Your task to perform on an android device: What's the weather going to be this weekend? Image 0: 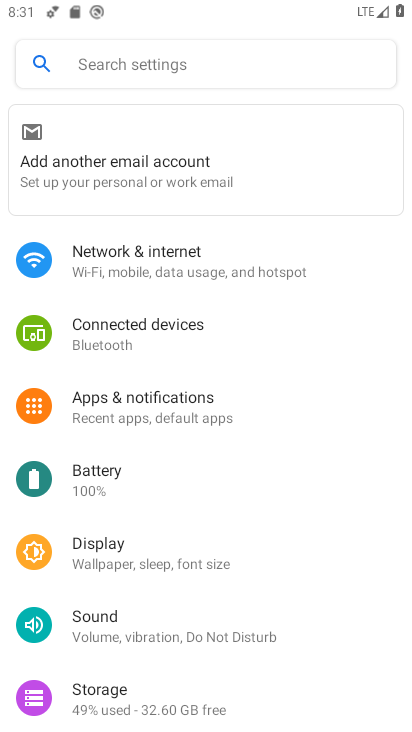
Step 0: press home button
Your task to perform on an android device: What's the weather going to be this weekend? Image 1: 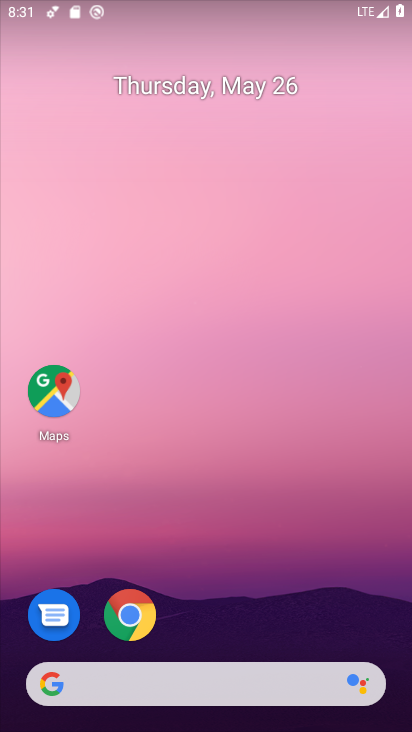
Step 1: drag from (212, 622) to (257, 246)
Your task to perform on an android device: What's the weather going to be this weekend? Image 2: 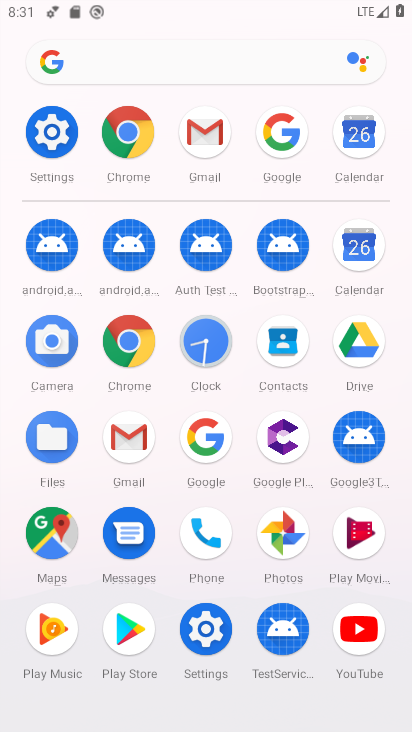
Step 2: click (358, 238)
Your task to perform on an android device: What's the weather going to be this weekend? Image 3: 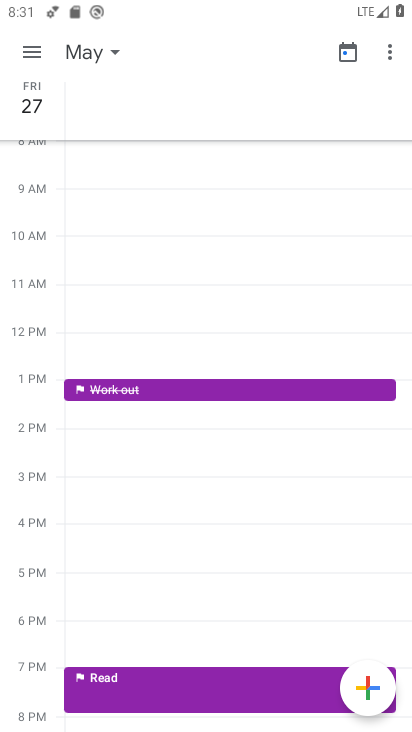
Step 3: click (33, 50)
Your task to perform on an android device: What's the weather going to be this weekend? Image 4: 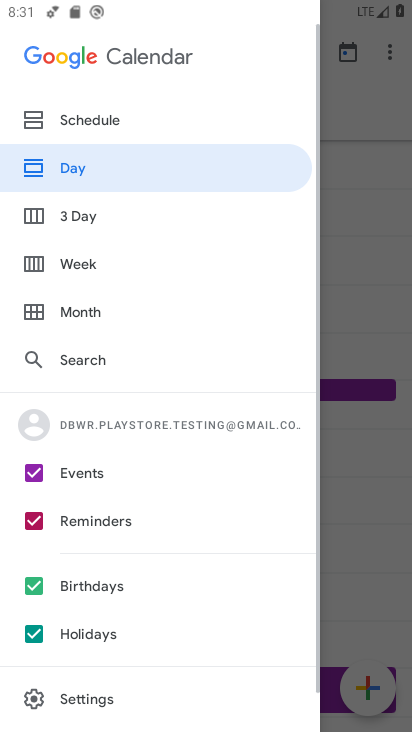
Step 4: click (79, 252)
Your task to perform on an android device: What's the weather going to be this weekend? Image 5: 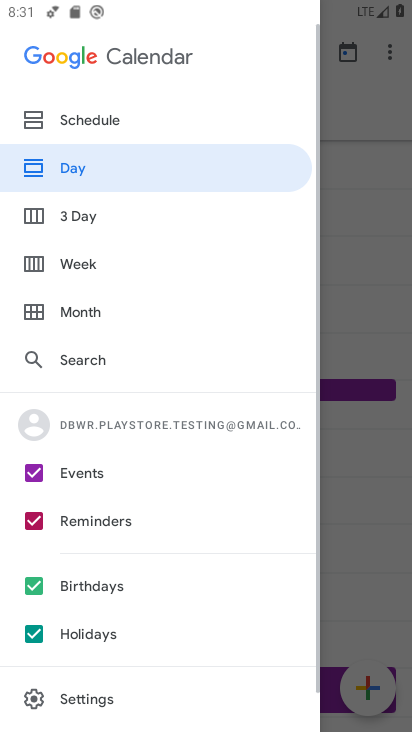
Step 5: press home button
Your task to perform on an android device: What's the weather going to be this weekend? Image 6: 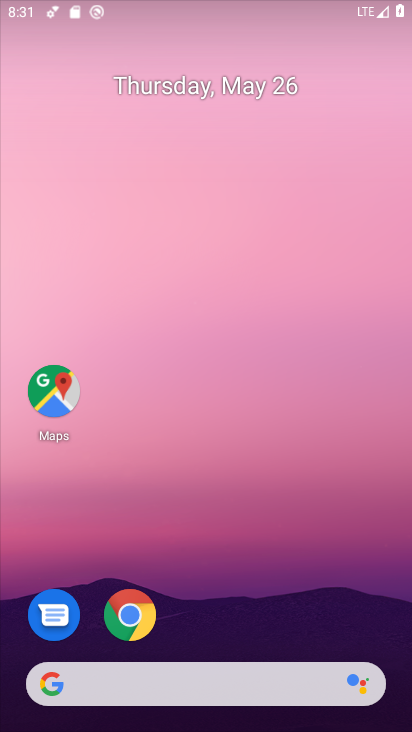
Step 6: click (134, 613)
Your task to perform on an android device: What's the weather going to be this weekend? Image 7: 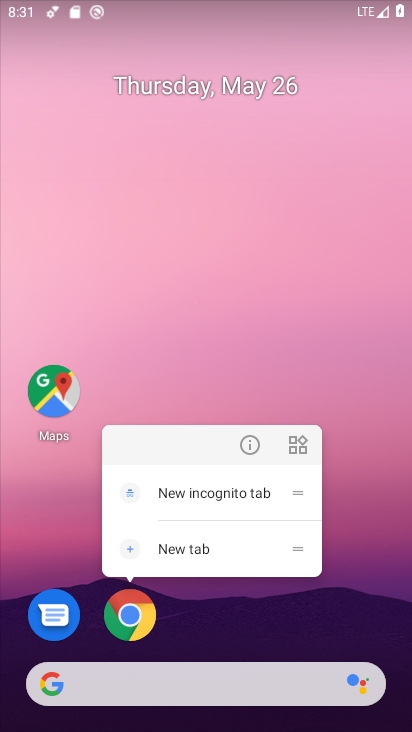
Step 7: click (134, 613)
Your task to perform on an android device: What's the weather going to be this weekend? Image 8: 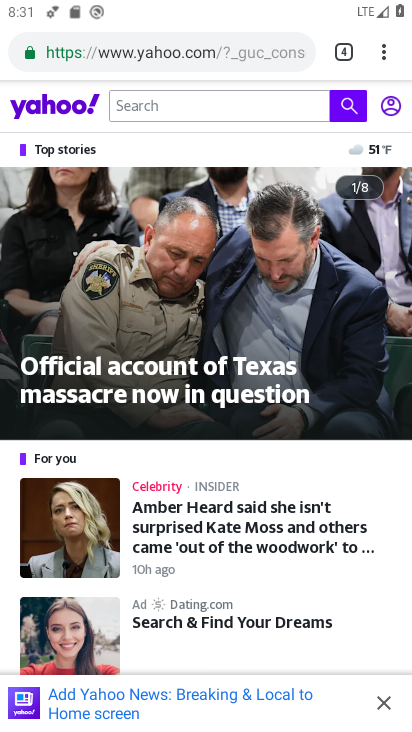
Step 8: click (377, 49)
Your task to perform on an android device: What's the weather going to be this weekend? Image 9: 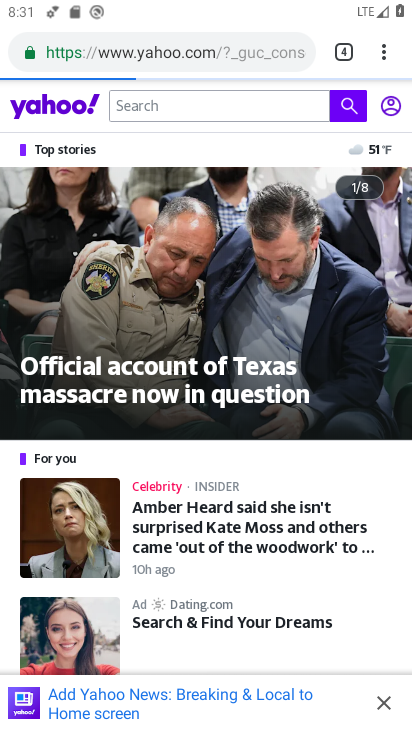
Step 9: click (385, 44)
Your task to perform on an android device: What's the weather going to be this weekend? Image 10: 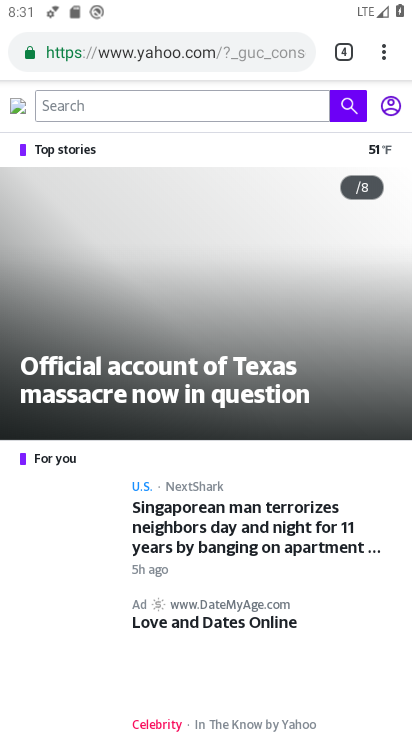
Step 10: click (378, 52)
Your task to perform on an android device: What's the weather going to be this weekend? Image 11: 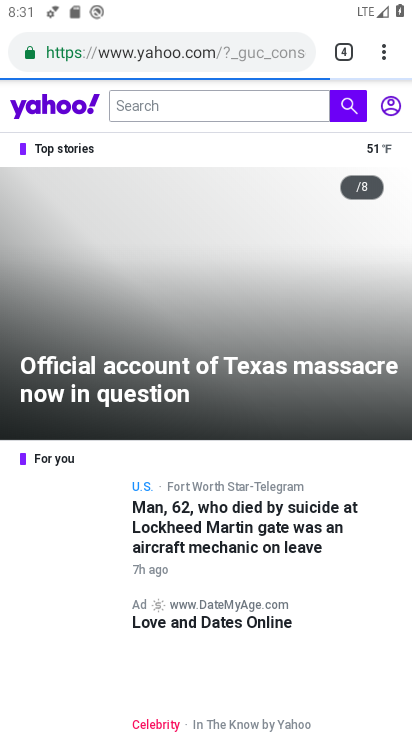
Step 11: click (382, 44)
Your task to perform on an android device: What's the weather going to be this weekend? Image 12: 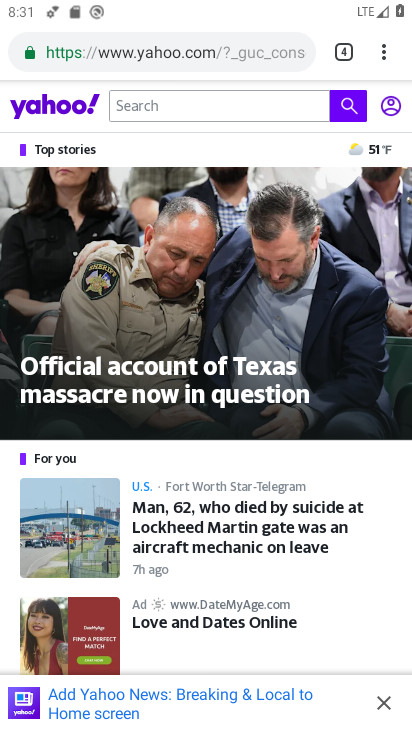
Step 12: click (377, 45)
Your task to perform on an android device: What's the weather going to be this weekend? Image 13: 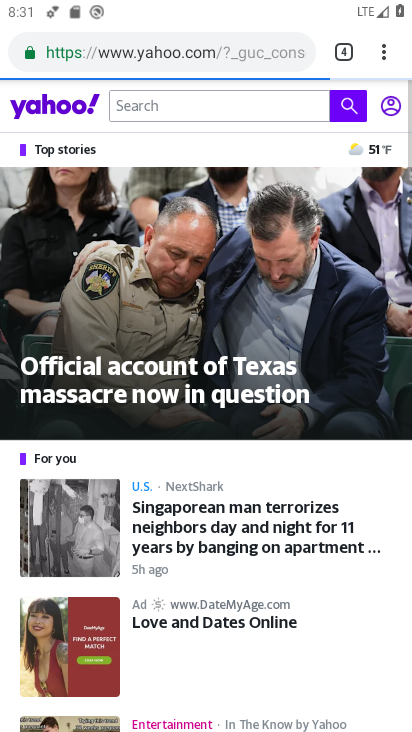
Step 13: click (373, 48)
Your task to perform on an android device: What's the weather going to be this weekend? Image 14: 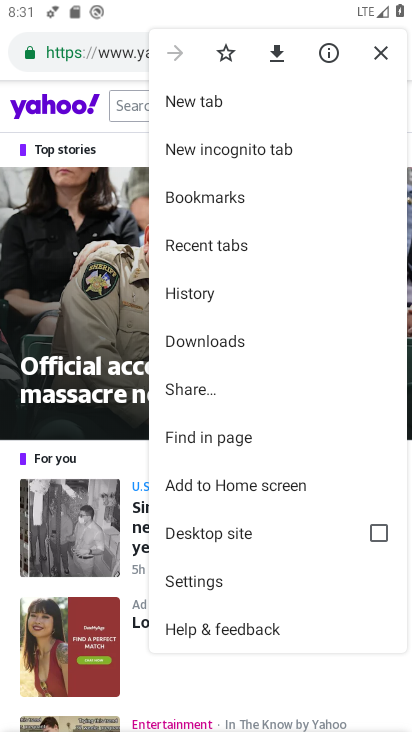
Step 14: click (210, 101)
Your task to perform on an android device: What's the weather going to be this weekend? Image 15: 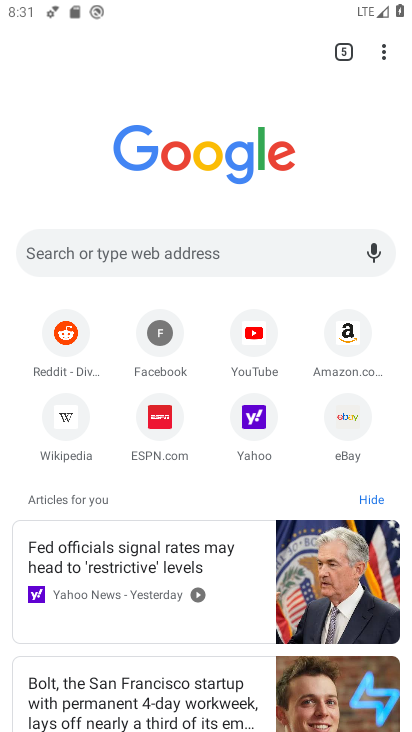
Step 15: click (174, 251)
Your task to perform on an android device: What's the weather going to be this weekend? Image 16: 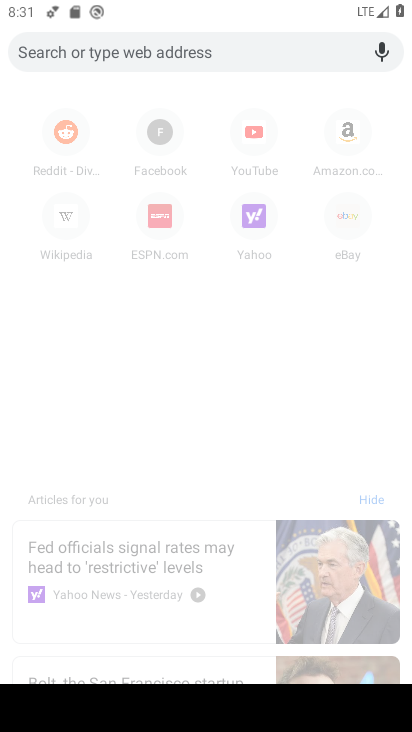
Step 16: type "What's the weather going to be this weekend?"
Your task to perform on an android device: What's the weather going to be this weekend? Image 17: 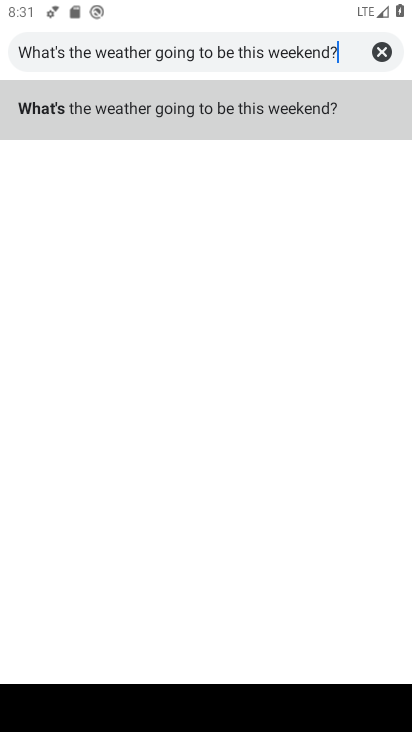
Step 17: click (163, 102)
Your task to perform on an android device: What's the weather going to be this weekend? Image 18: 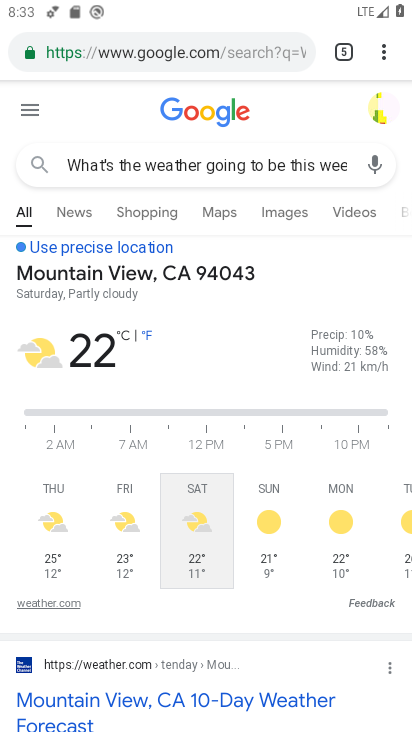
Step 18: task complete